Your task to perform on an android device: toggle translation in the chrome app Image 0: 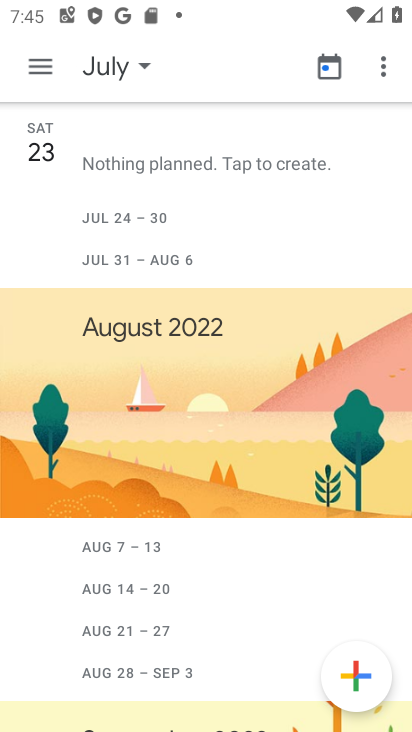
Step 0: press home button
Your task to perform on an android device: toggle translation in the chrome app Image 1: 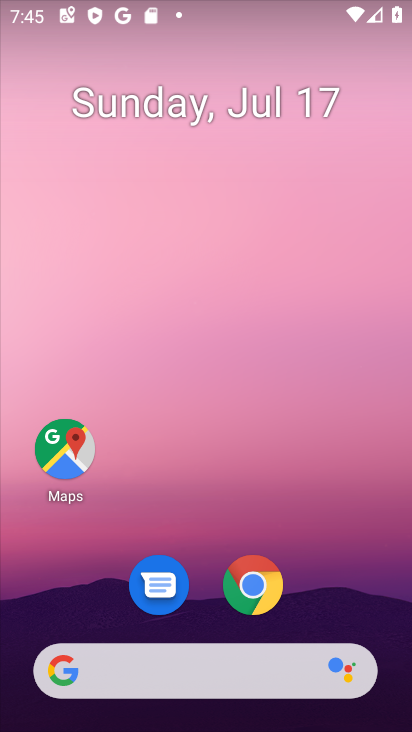
Step 1: click (257, 595)
Your task to perform on an android device: toggle translation in the chrome app Image 2: 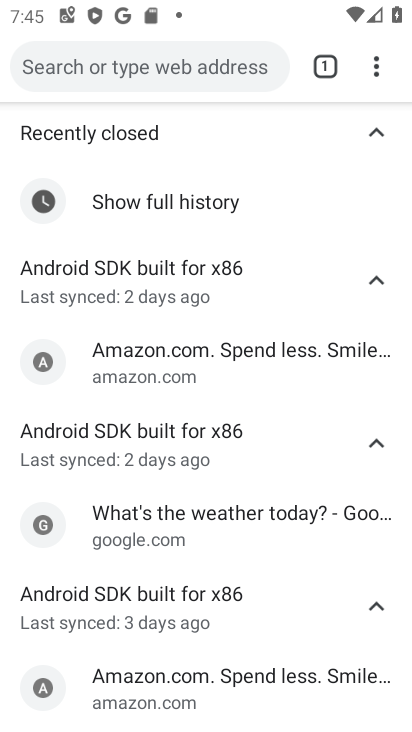
Step 2: click (378, 64)
Your task to perform on an android device: toggle translation in the chrome app Image 3: 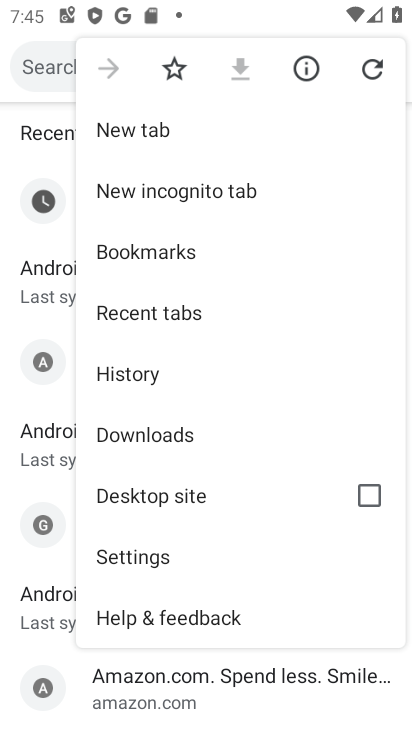
Step 3: click (172, 552)
Your task to perform on an android device: toggle translation in the chrome app Image 4: 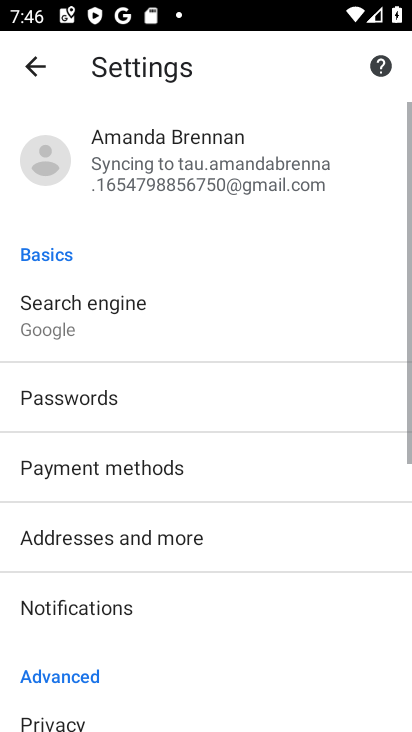
Step 4: drag from (175, 562) to (194, 196)
Your task to perform on an android device: toggle translation in the chrome app Image 5: 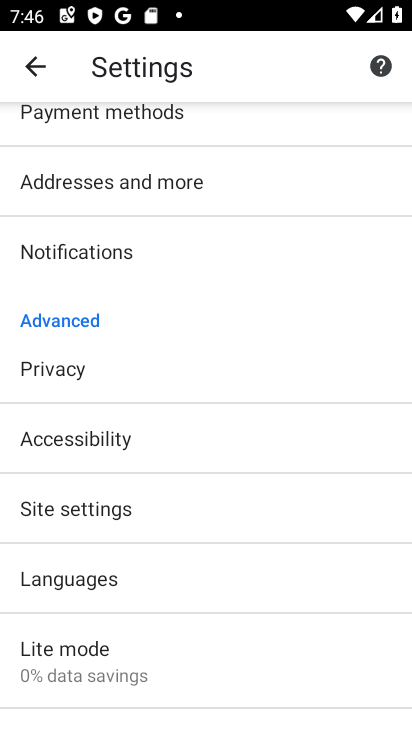
Step 5: click (159, 578)
Your task to perform on an android device: toggle translation in the chrome app Image 6: 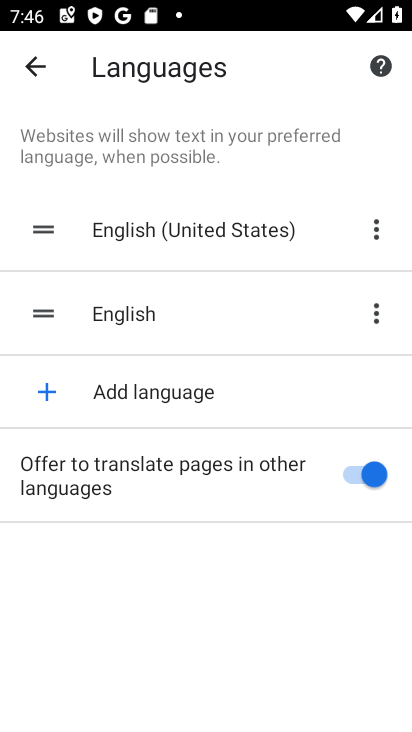
Step 6: click (368, 472)
Your task to perform on an android device: toggle translation in the chrome app Image 7: 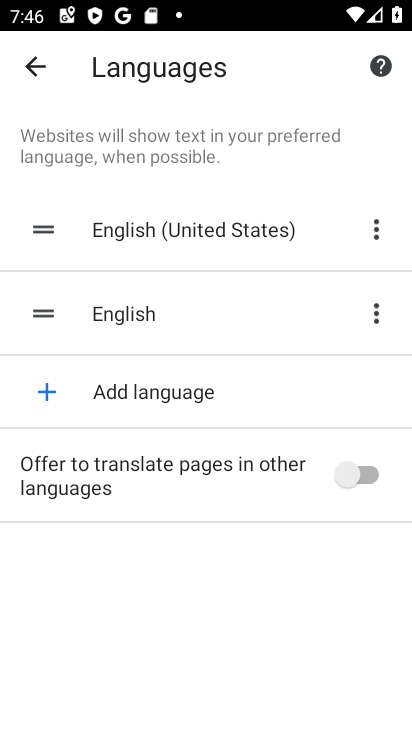
Step 7: task complete